Your task to perform on an android device: Go to calendar. Show me events next week Image 0: 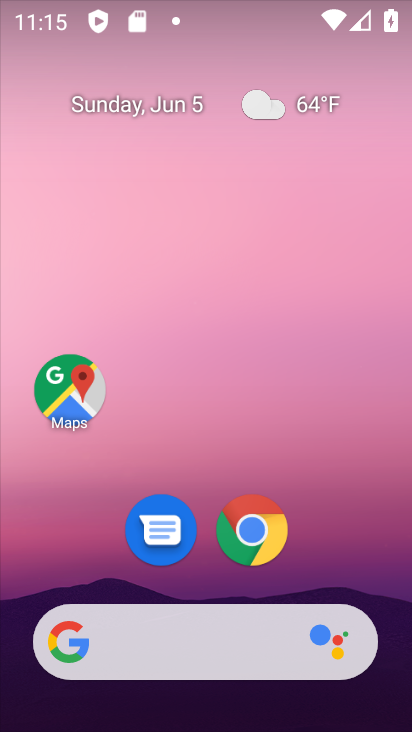
Step 0: drag from (372, 591) to (394, 9)
Your task to perform on an android device: Go to calendar. Show me events next week Image 1: 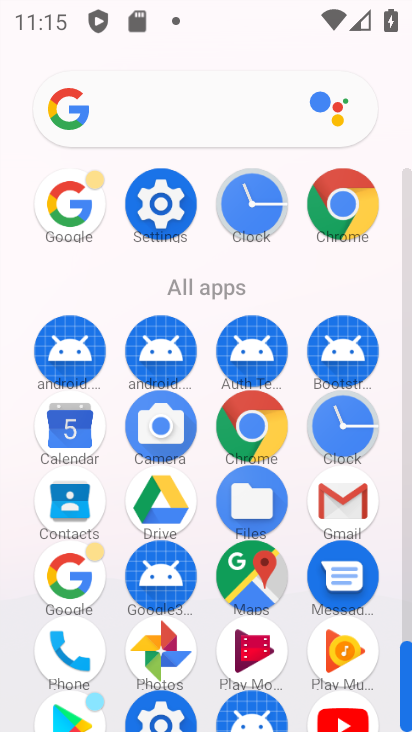
Step 1: click (74, 443)
Your task to perform on an android device: Go to calendar. Show me events next week Image 2: 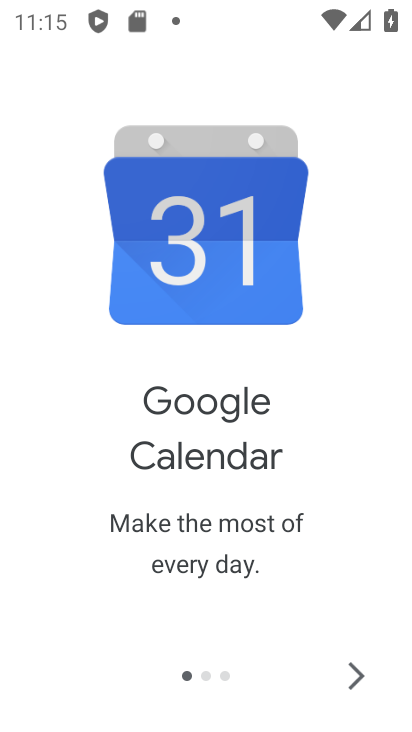
Step 2: click (364, 694)
Your task to perform on an android device: Go to calendar. Show me events next week Image 3: 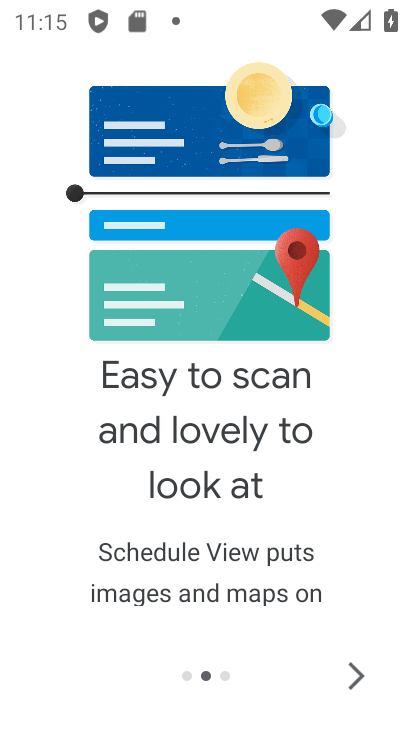
Step 3: click (364, 694)
Your task to perform on an android device: Go to calendar. Show me events next week Image 4: 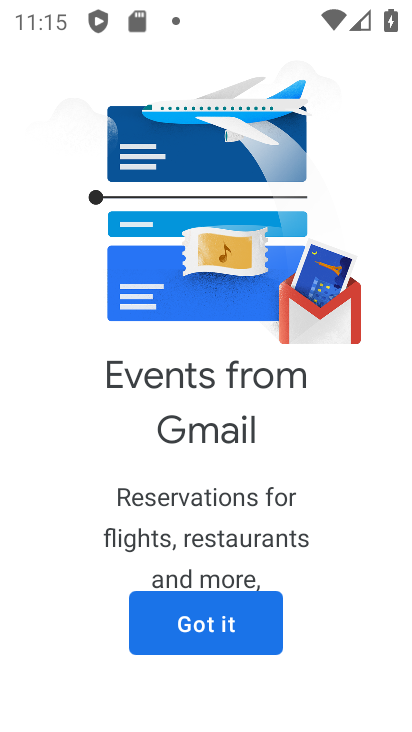
Step 4: click (203, 639)
Your task to perform on an android device: Go to calendar. Show me events next week Image 5: 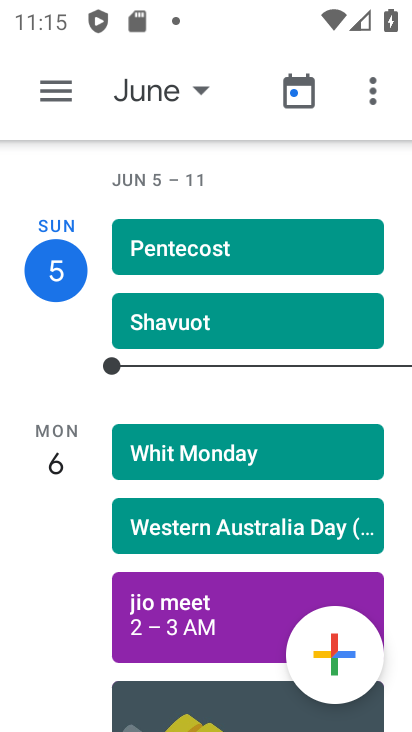
Step 5: click (146, 107)
Your task to perform on an android device: Go to calendar. Show me events next week Image 6: 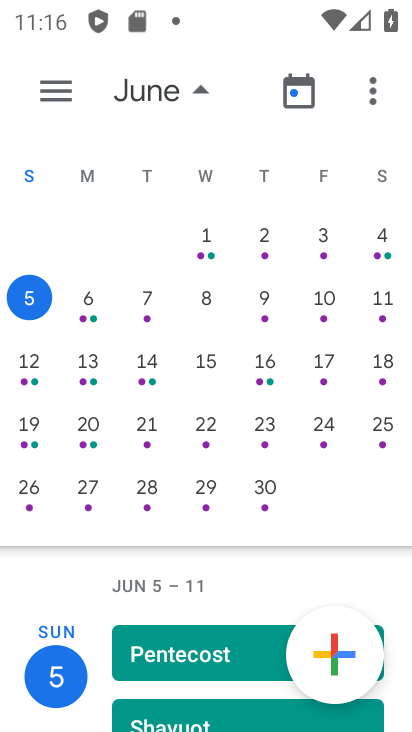
Step 6: click (15, 365)
Your task to perform on an android device: Go to calendar. Show me events next week Image 7: 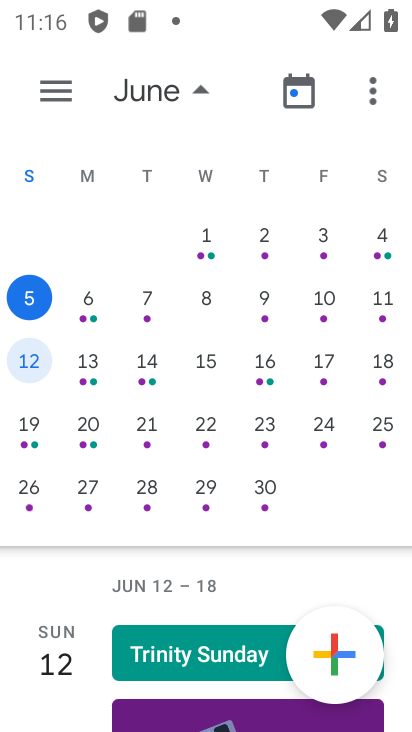
Step 7: task complete